Your task to perform on an android device: Open my contact list Image 0: 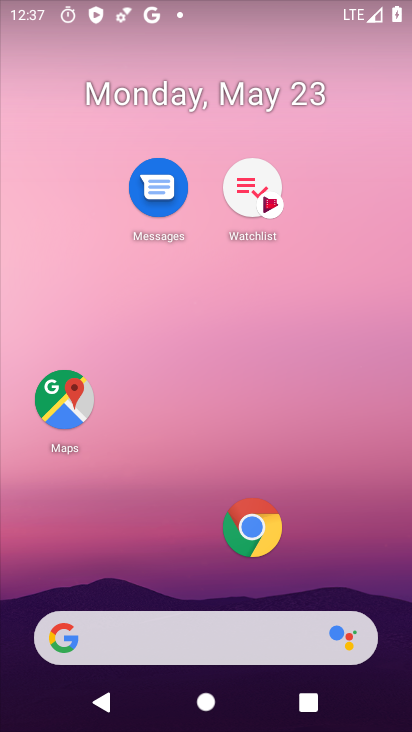
Step 0: drag from (271, 711) to (148, 226)
Your task to perform on an android device: Open my contact list Image 1: 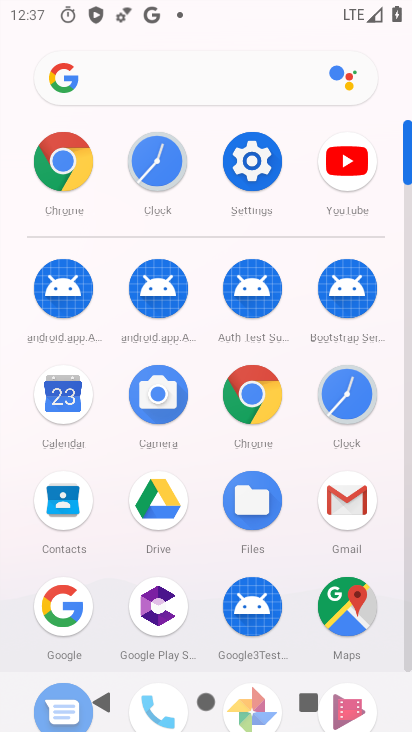
Step 1: click (64, 507)
Your task to perform on an android device: Open my contact list Image 2: 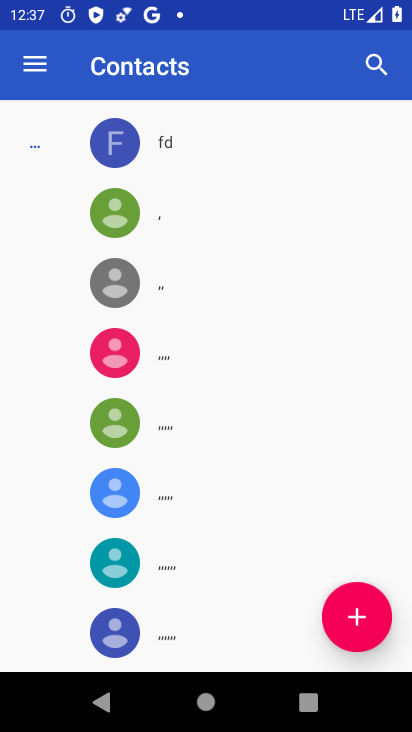
Step 2: task complete